Your task to perform on an android device: Go to eBay Image 0: 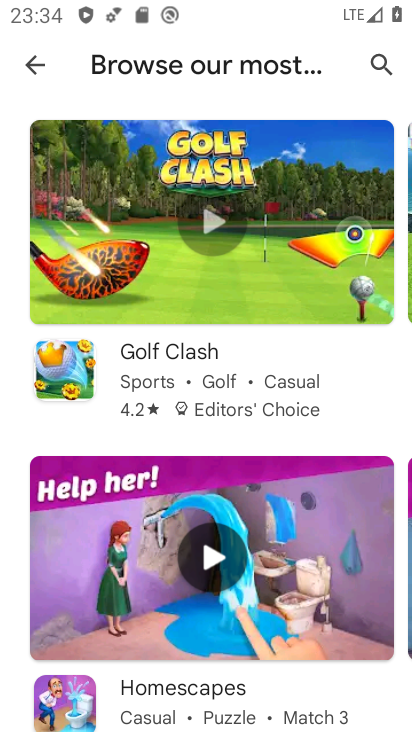
Step 0: press home button
Your task to perform on an android device: Go to eBay Image 1: 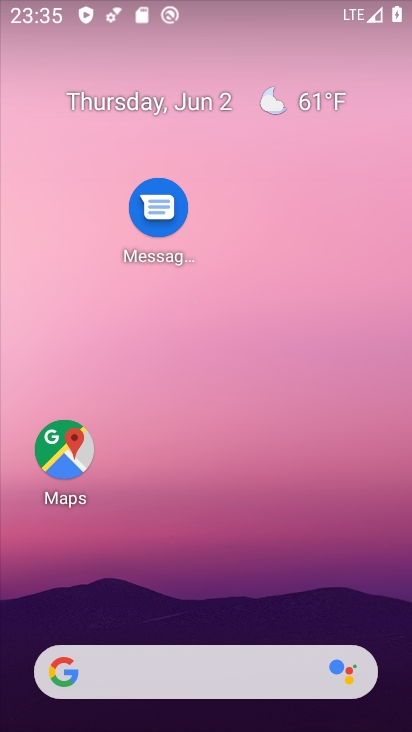
Step 1: drag from (239, 627) to (272, 4)
Your task to perform on an android device: Go to eBay Image 2: 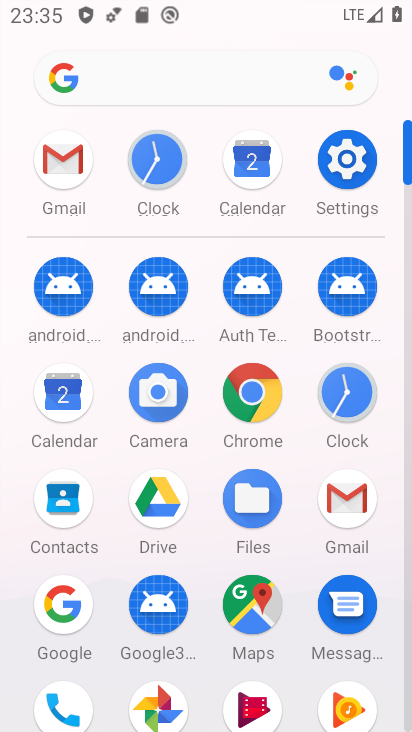
Step 2: click (264, 380)
Your task to perform on an android device: Go to eBay Image 3: 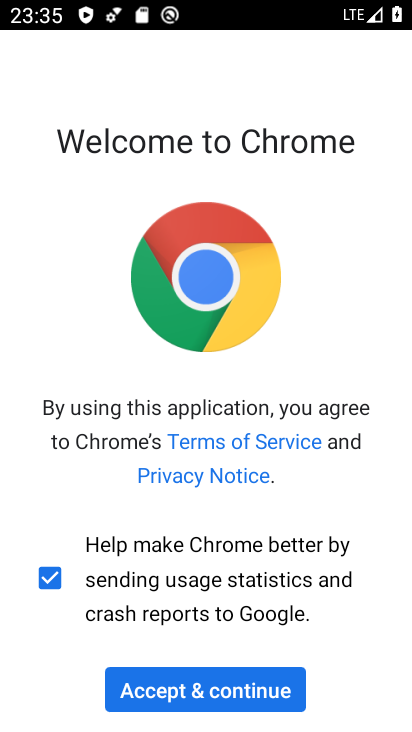
Step 3: click (192, 711)
Your task to perform on an android device: Go to eBay Image 4: 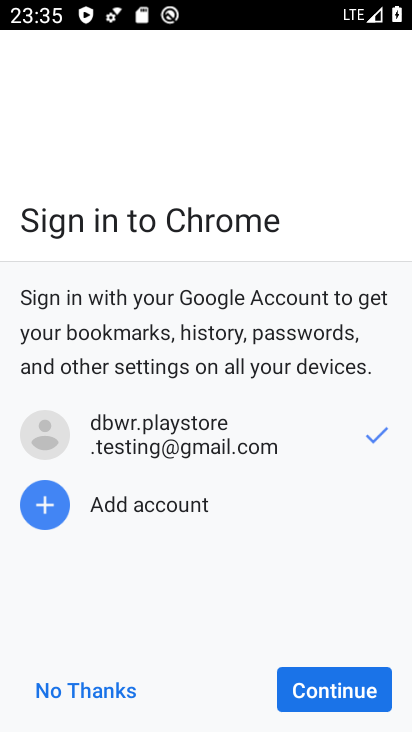
Step 4: click (297, 687)
Your task to perform on an android device: Go to eBay Image 5: 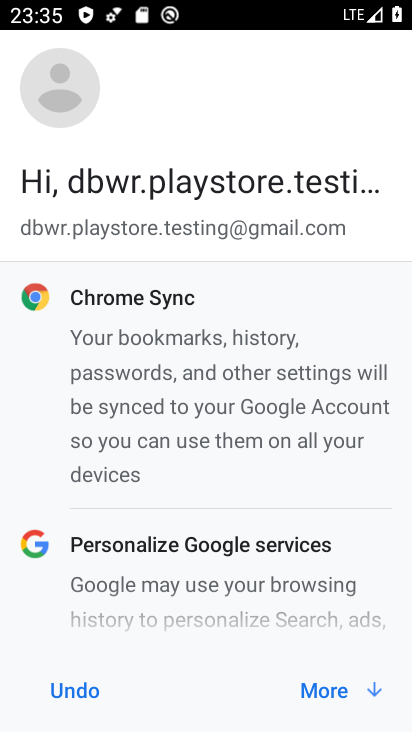
Step 5: click (352, 690)
Your task to perform on an android device: Go to eBay Image 6: 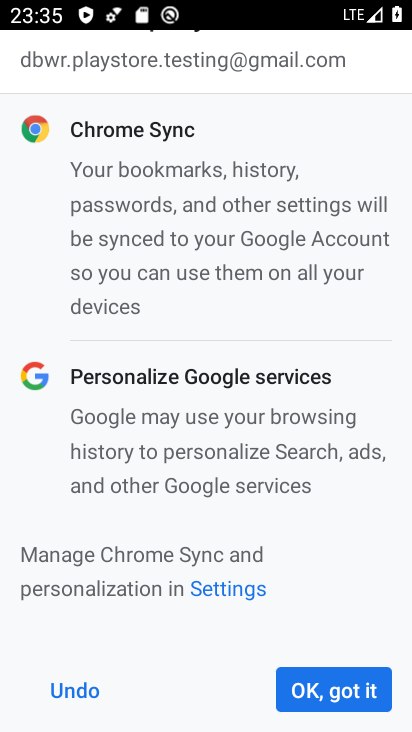
Step 6: click (352, 690)
Your task to perform on an android device: Go to eBay Image 7: 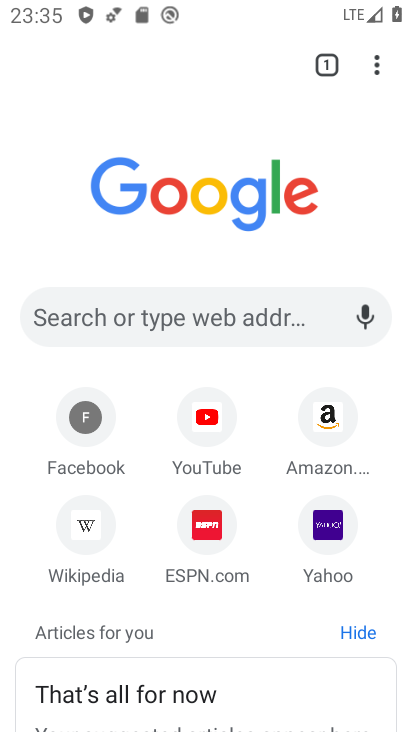
Step 7: click (229, 324)
Your task to perform on an android device: Go to eBay Image 8: 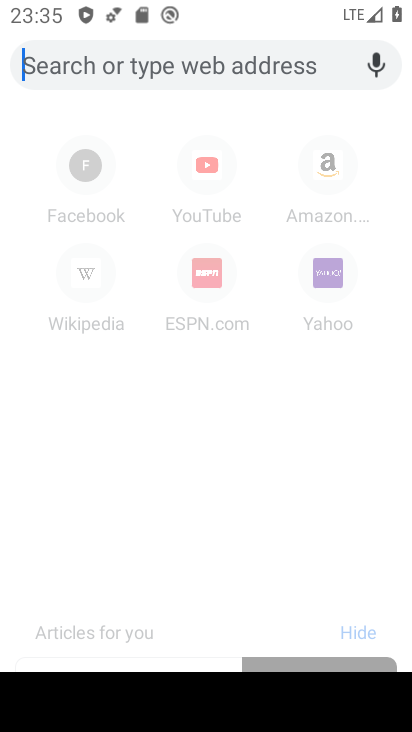
Step 8: type "ebay"
Your task to perform on an android device: Go to eBay Image 9: 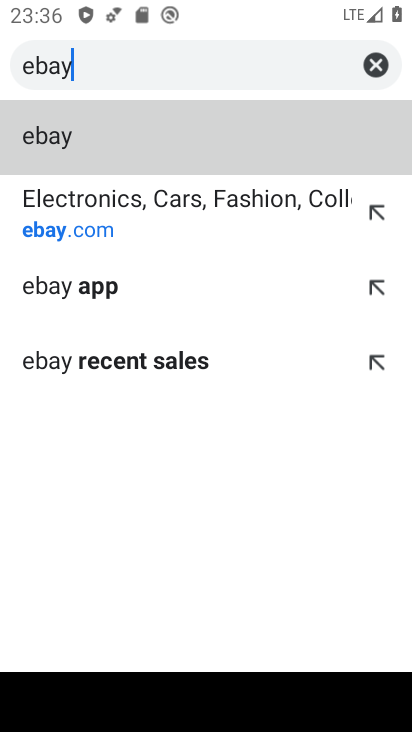
Step 9: click (69, 213)
Your task to perform on an android device: Go to eBay Image 10: 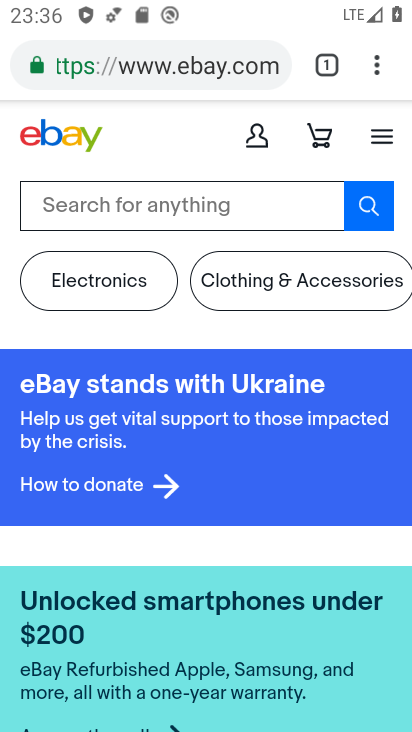
Step 10: task complete